Your task to perform on an android device: turn on location history Image 0: 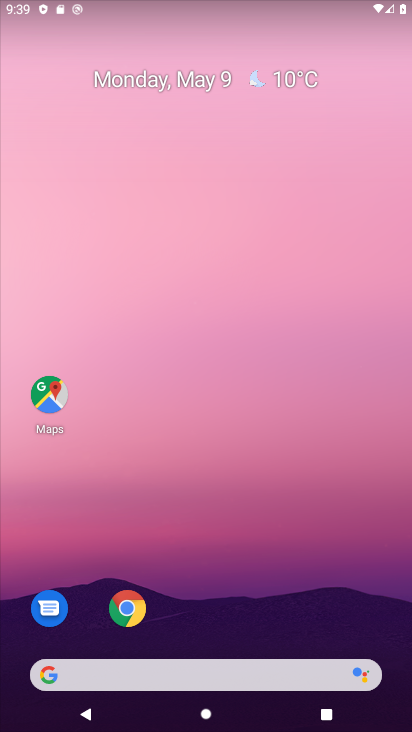
Step 0: drag from (201, 638) to (248, 92)
Your task to perform on an android device: turn on location history Image 1: 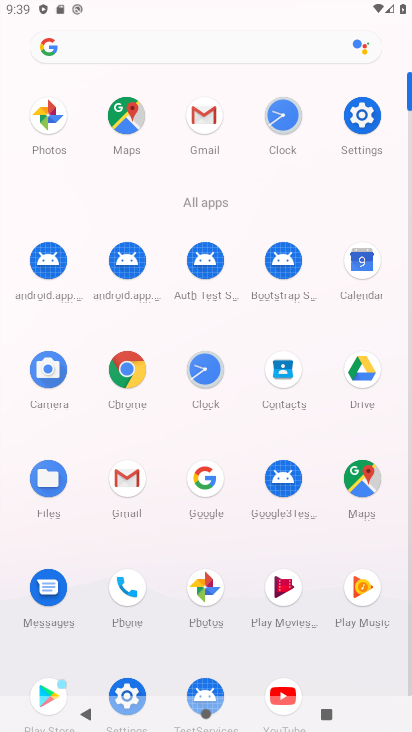
Step 1: drag from (359, 123) to (61, 136)
Your task to perform on an android device: turn on location history Image 2: 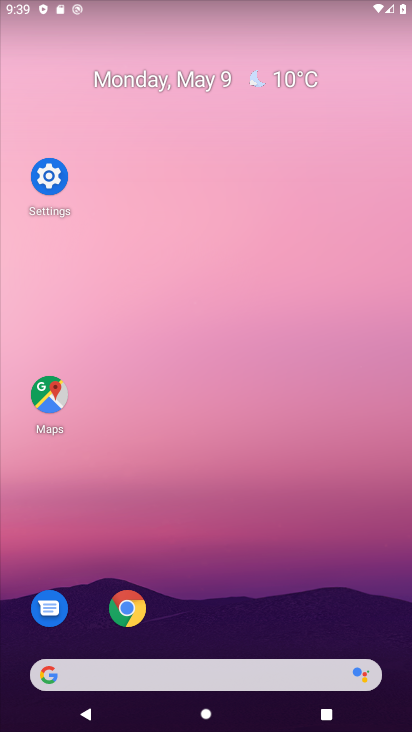
Step 2: click (40, 169)
Your task to perform on an android device: turn on location history Image 3: 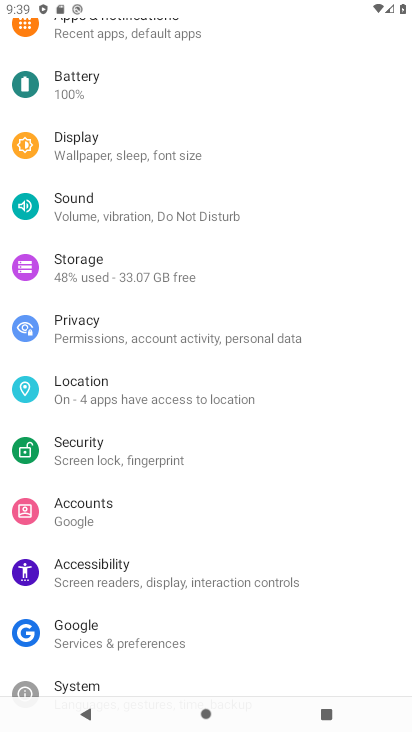
Step 3: click (221, 402)
Your task to perform on an android device: turn on location history Image 4: 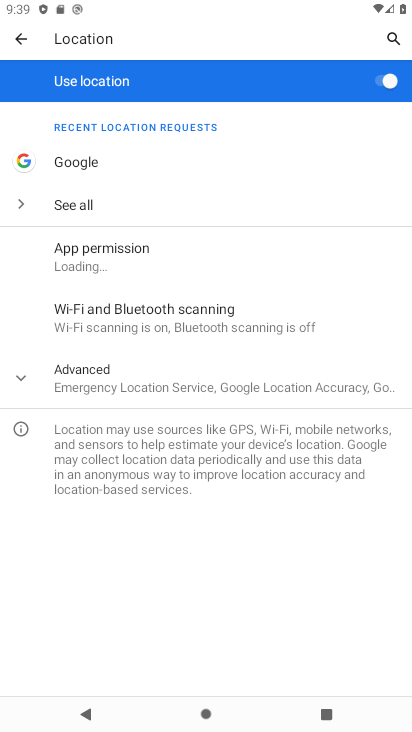
Step 4: click (228, 402)
Your task to perform on an android device: turn on location history Image 5: 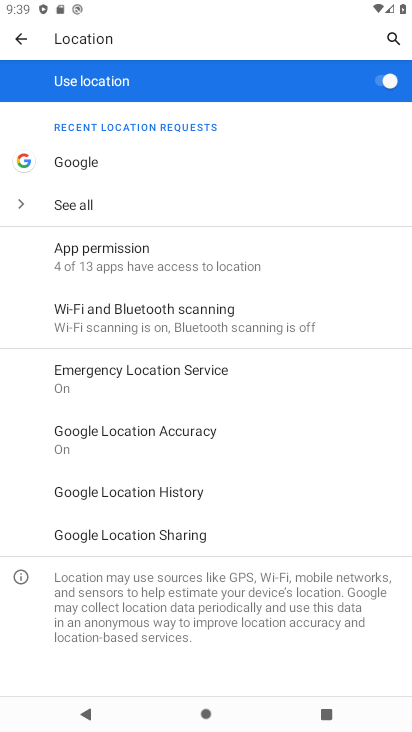
Step 5: click (184, 505)
Your task to perform on an android device: turn on location history Image 6: 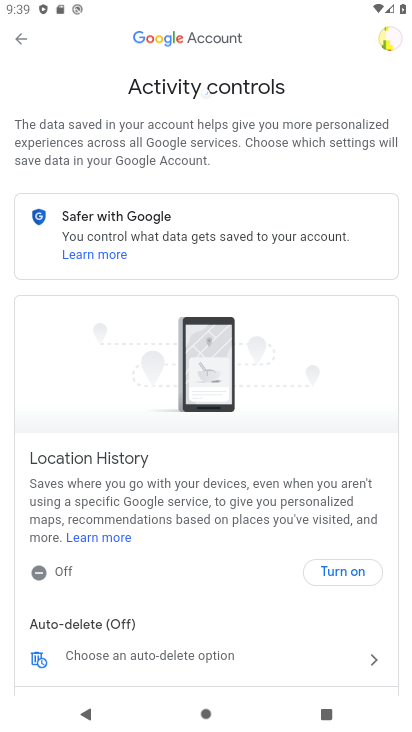
Step 6: click (327, 575)
Your task to perform on an android device: turn on location history Image 7: 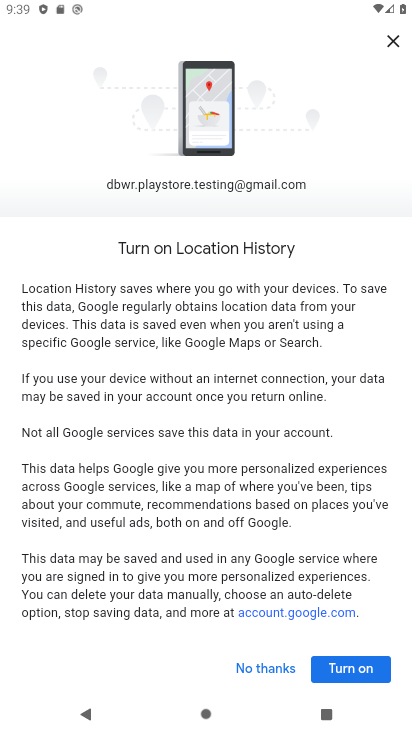
Step 7: click (346, 669)
Your task to perform on an android device: turn on location history Image 8: 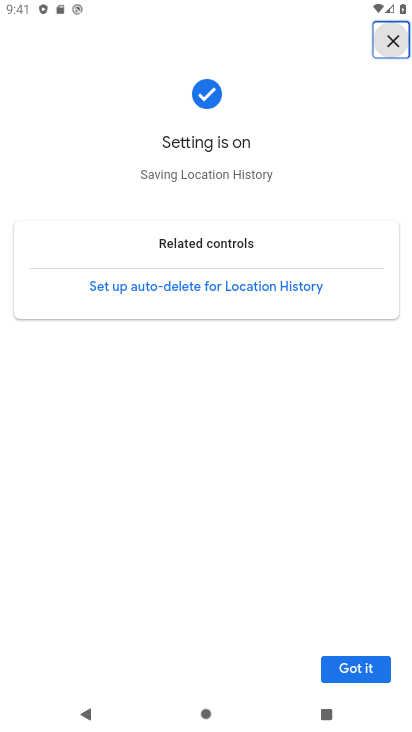
Step 8: click (360, 667)
Your task to perform on an android device: turn on location history Image 9: 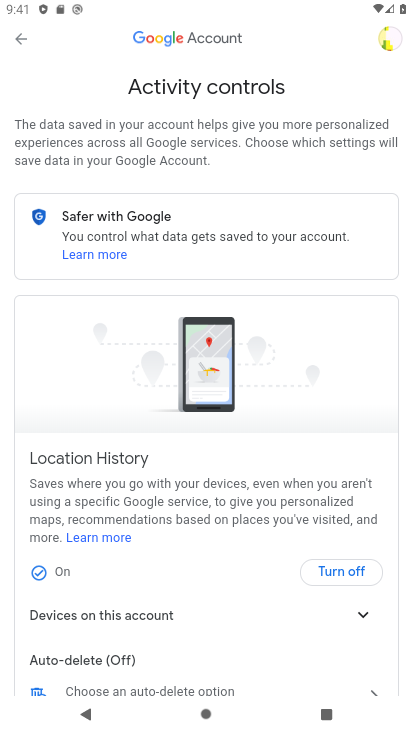
Step 9: task complete